Your task to perform on an android device: turn off translation in the chrome app Image 0: 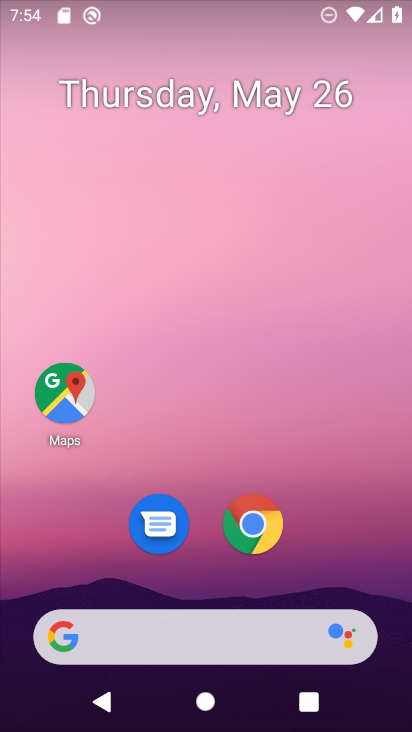
Step 0: click (264, 520)
Your task to perform on an android device: turn off translation in the chrome app Image 1: 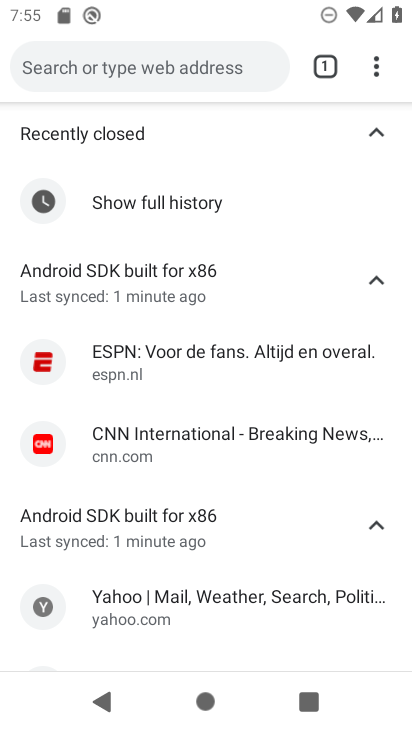
Step 1: click (374, 70)
Your task to perform on an android device: turn off translation in the chrome app Image 2: 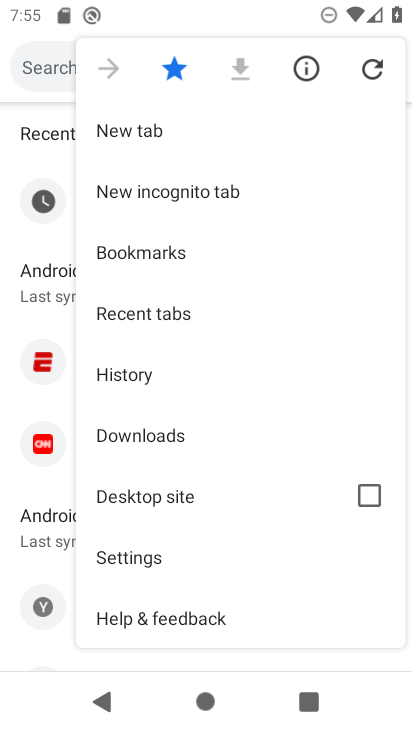
Step 2: click (171, 551)
Your task to perform on an android device: turn off translation in the chrome app Image 3: 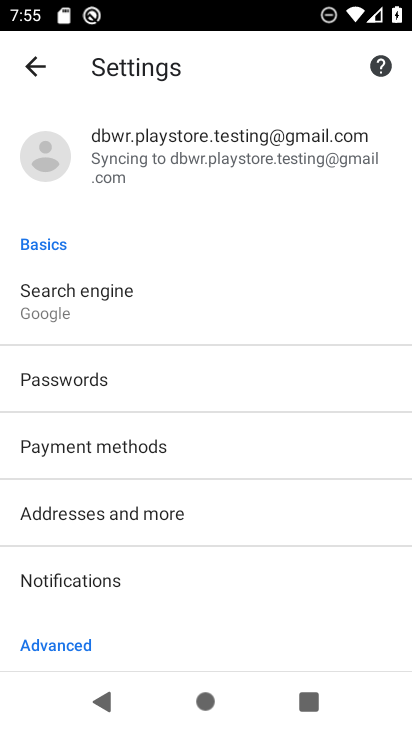
Step 3: click (171, 567)
Your task to perform on an android device: turn off translation in the chrome app Image 4: 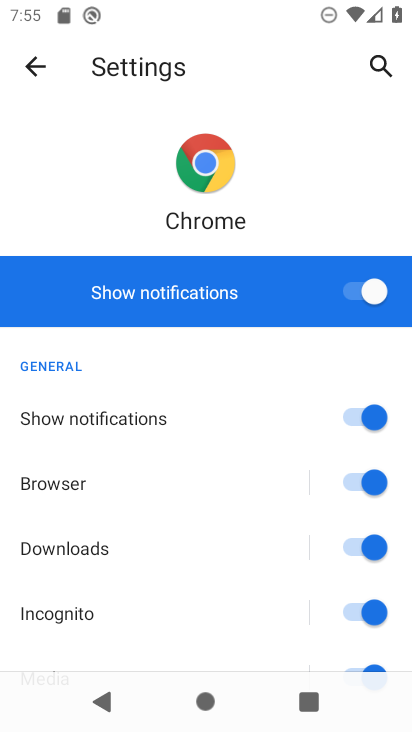
Step 4: click (363, 295)
Your task to perform on an android device: turn off translation in the chrome app Image 5: 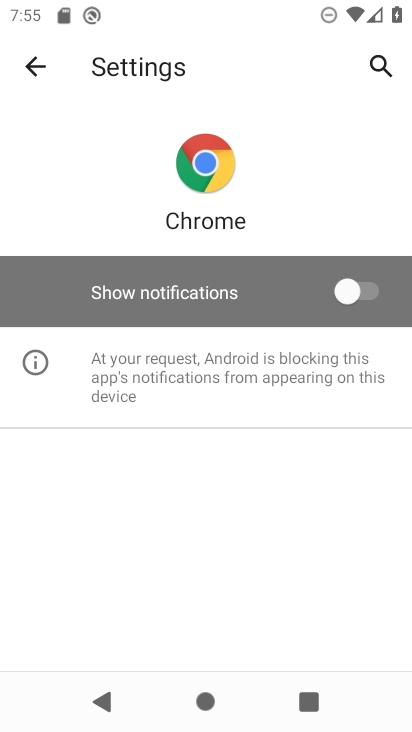
Step 5: task complete